Your task to perform on an android device: set default search engine in the chrome app Image 0: 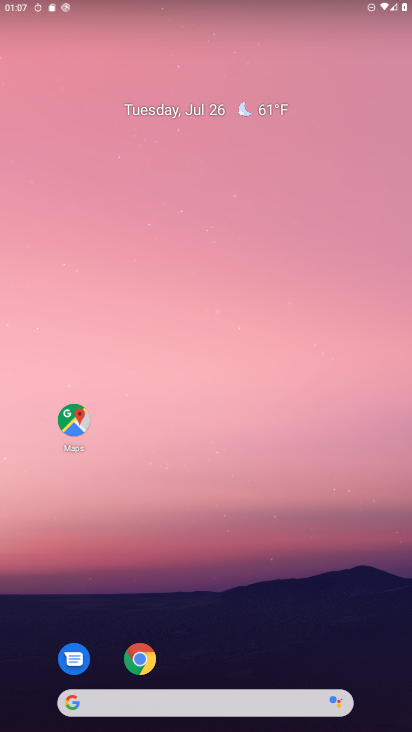
Step 0: drag from (21, 616) to (185, 196)
Your task to perform on an android device: set default search engine in the chrome app Image 1: 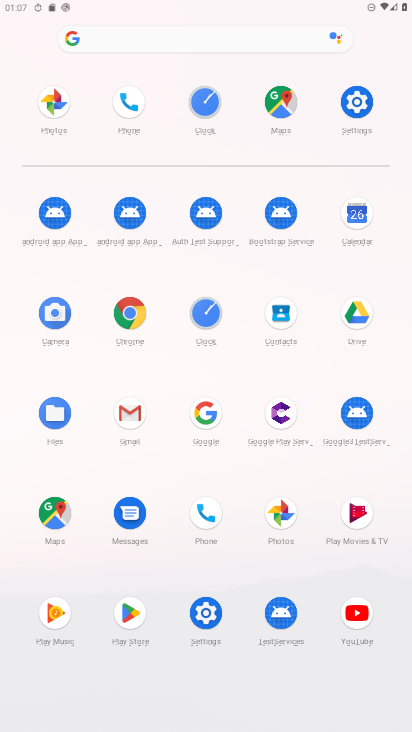
Step 1: click (127, 315)
Your task to perform on an android device: set default search engine in the chrome app Image 2: 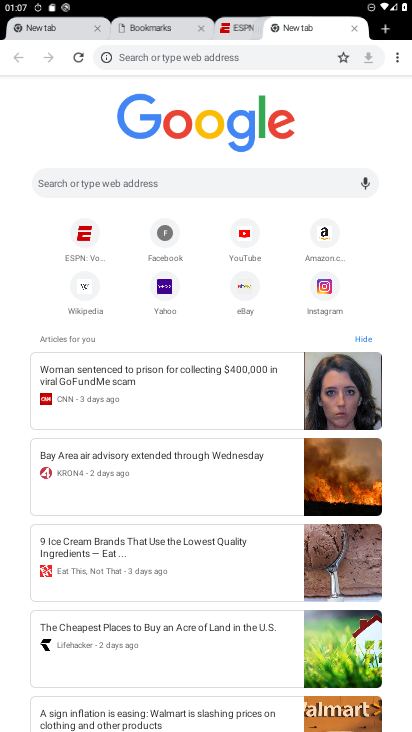
Step 2: click (399, 58)
Your task to perform on an android device: set default search engine in the chrome app Image 3: 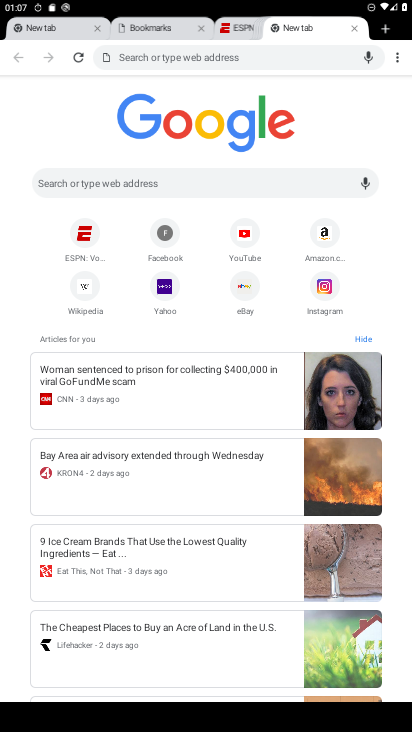
Step 3: click (400, 57)
Your task to perform on an android device: set default search engine in the chrome app Image 4: 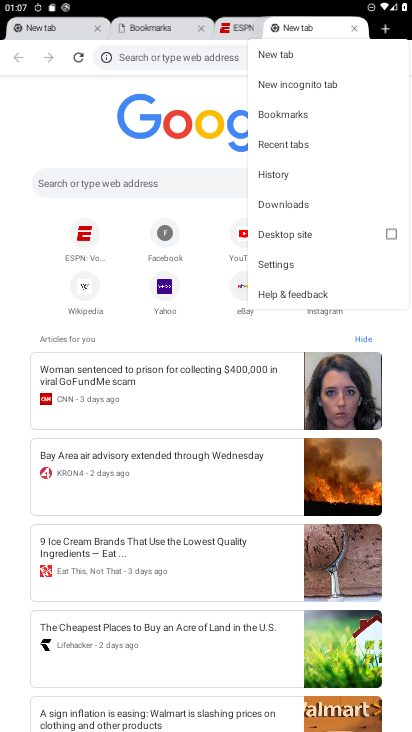
Step 4: click (281, 265)
Your task to perform on an android device: set default search engine in the chrome app Image 5: 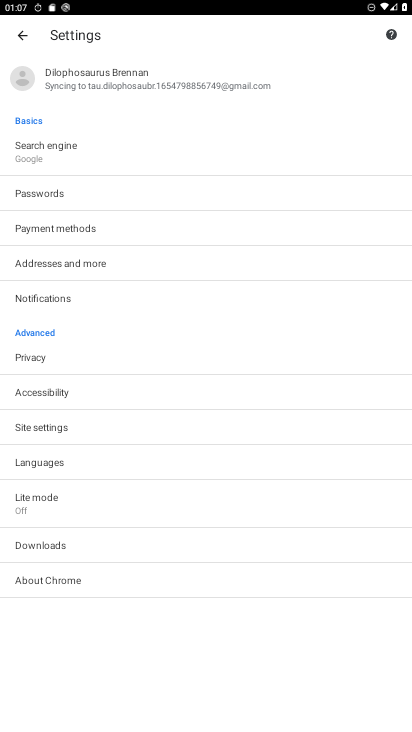
Step 5: click (49, 153)
Your task to perform on an android device: set default search engine in the chrome app Image 6: 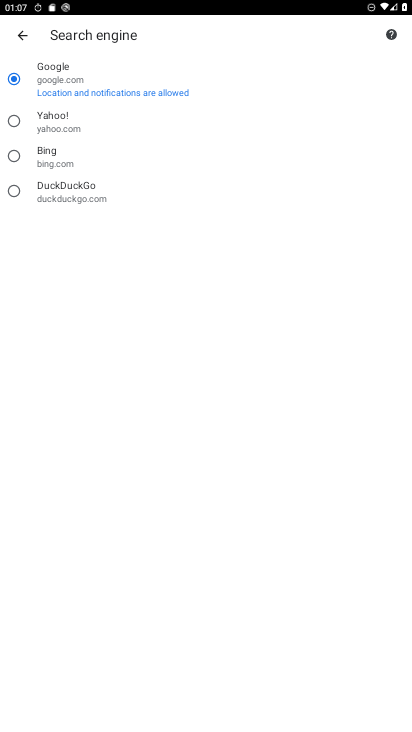
Step 6: task complete